Your task to perform on an android device: Open Google Chrome and click the shortcut for Amazon.com Image 0: 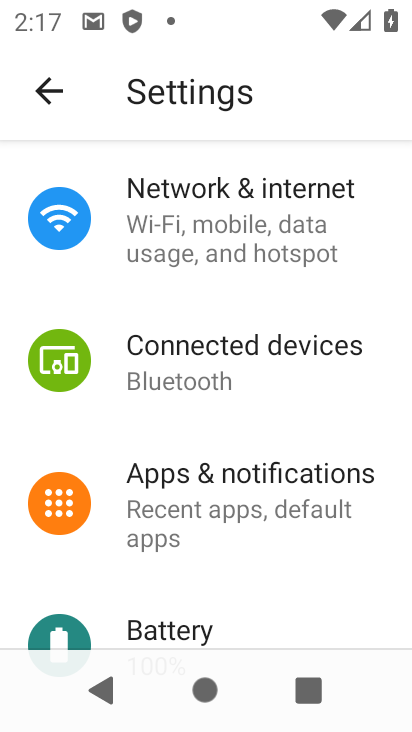
Step 0: press back button
Your task to perform on an android device: Open Google Chrome and click the shortcut for Amazon.com Image 1: 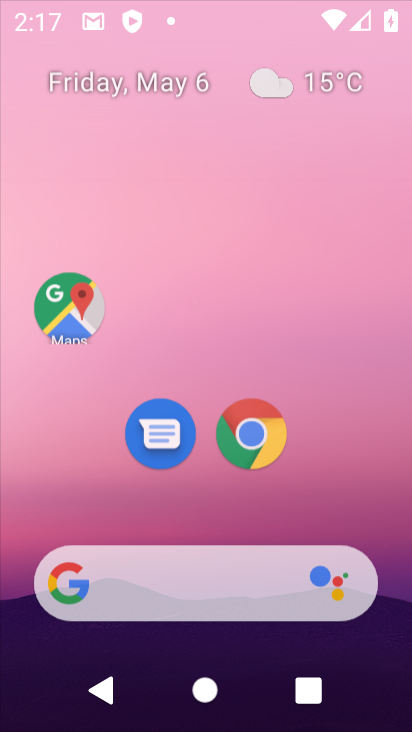
Step 1: press home button
Your task to perform on an android device: Open Google Chrome and click the shortcut for Amazon.com Image 2: 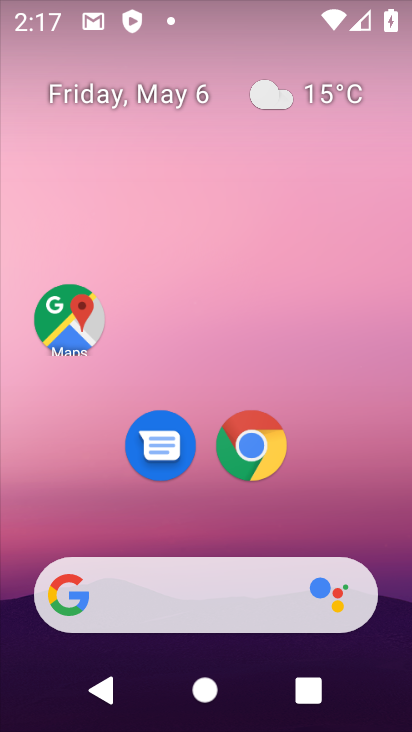
Step 2: click (247, 454)
Your task to perform on an android device: Open Google Chrome and click the shortcut for Amazon.com Image 3: 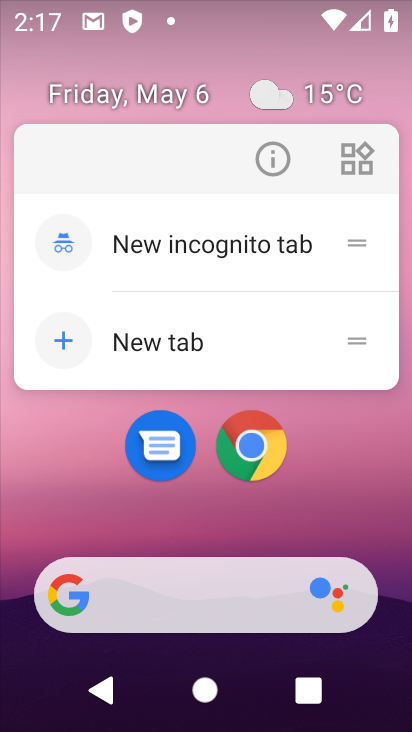
Step 3: click (256, 456)
Your task to perform on an android device: Open Google Chrome and click the shortcut for Amazon.com Image 4: 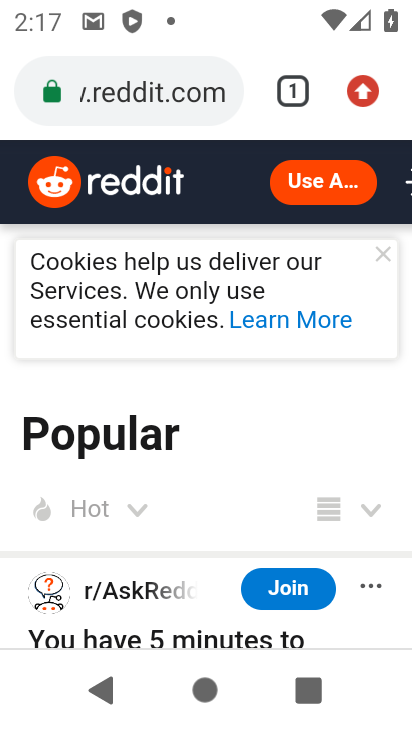
Step 4: press back button
Your task to perform on an android device: Open Google Chrome and click the shortcut for Amazon.com Image 5: 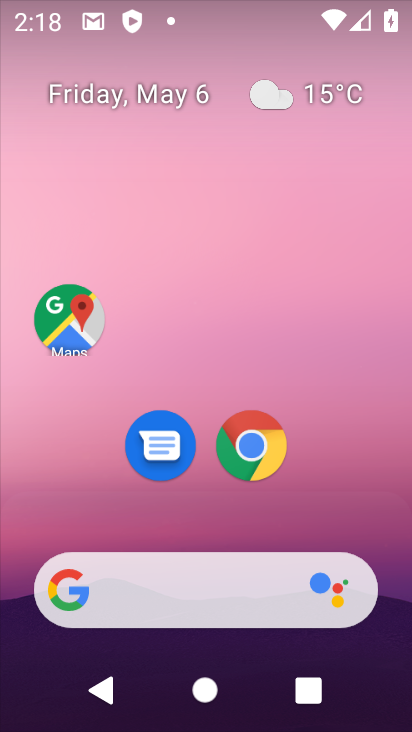
Step 5: click (248, 457)
Your task to perform on an android device: Open Google Chrome and click the shortcut for Amazon.com Image 6: 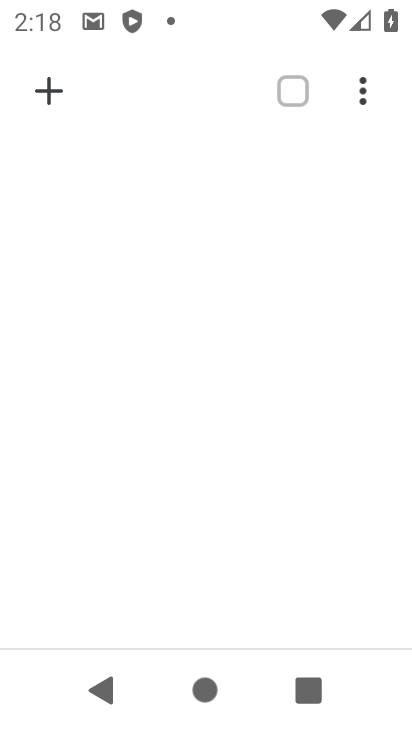
Step 6: click (88, 115)
Your task to perform on an android device: Open Google Chrome and click the shortcut for Amazon.com Image 7: 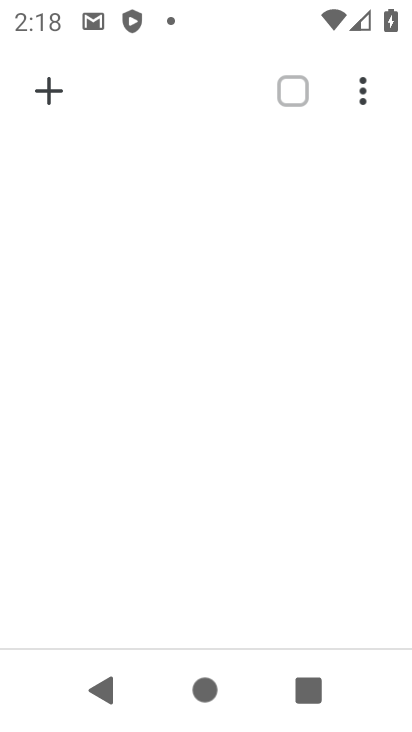
Step 7: click (62, 100)
Your task to perform on an android device: Open Google Chrome and click the shortcut for Amazon.com Image 8: 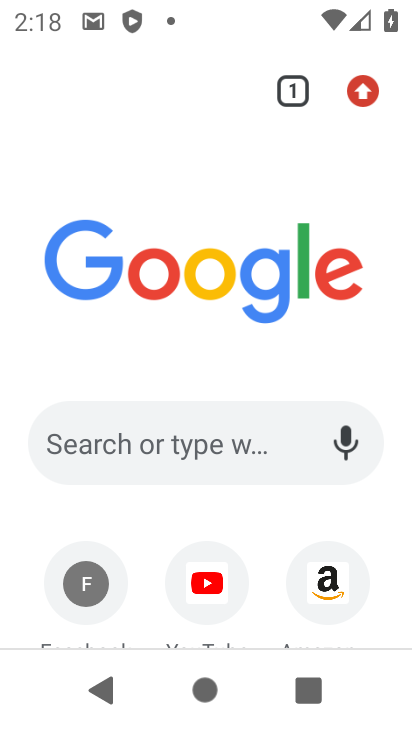
Step 8: drag from (163, 530) to (244, 206)
Your task to perform on an android device: Open Google Chrome and click the shortcut for Amazon.com Image 9: 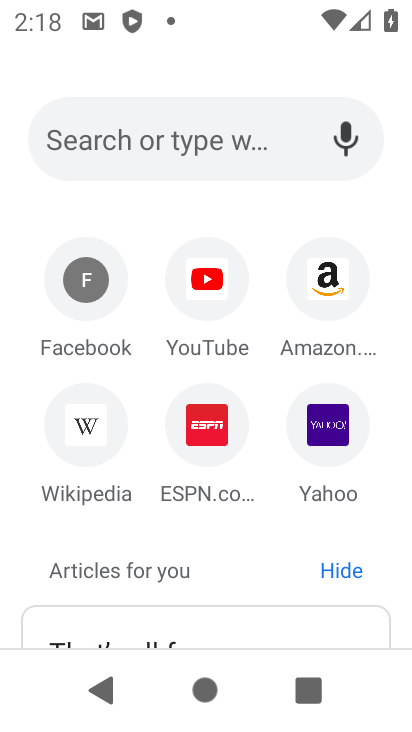
Step 9: click (332, 301)
Your task to perform on an android device: Open Google Chrome and click the shortcut for Amazon.com Image 10: 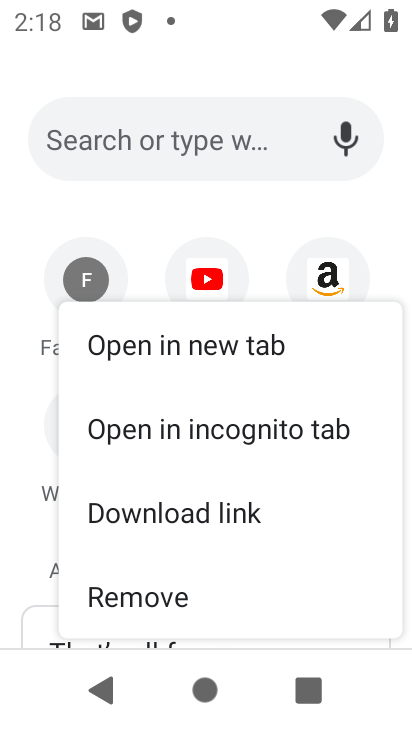
Step 10: click (331, 286)
Your task to perform on an android device: Open Google Chrome and click the shortcut for Amazon.com Image 11: 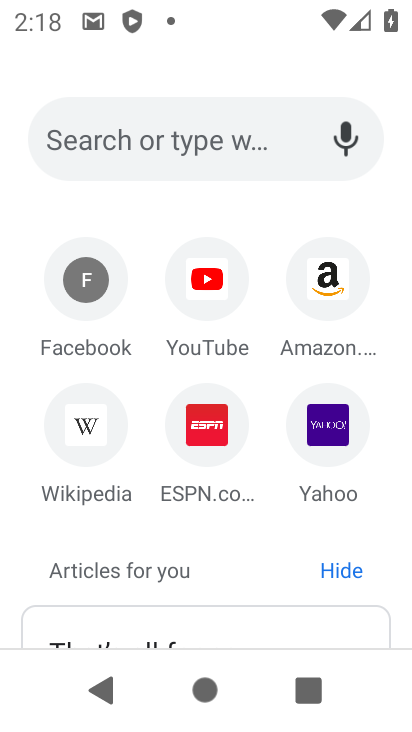
Step 11: click (332, 303)
Your task to perform on an android device: Open Google Chrome and click the shortcut for Amazon.com Image 12: 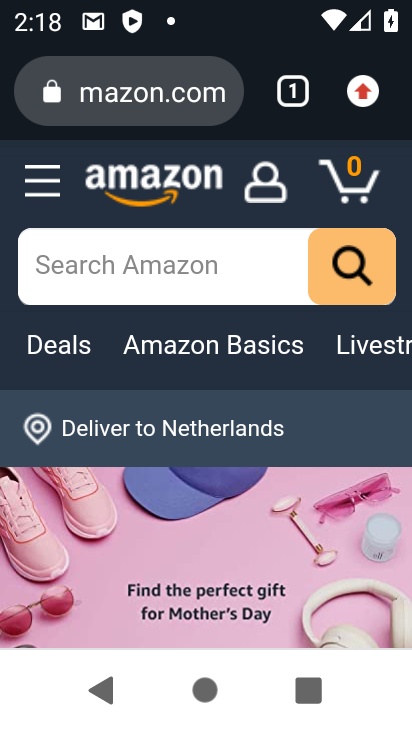
Step 12: task complete